Your task to perform on an android device: Open the map Image 0: 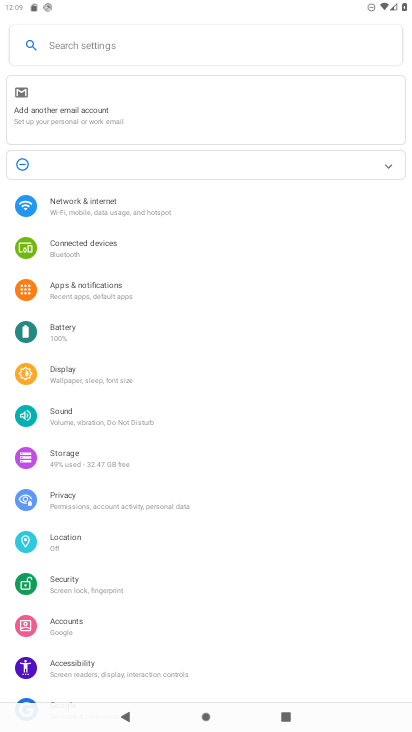
Step 0: click (361, 585)
Your task to perform on an android device: Open the map Image 1: 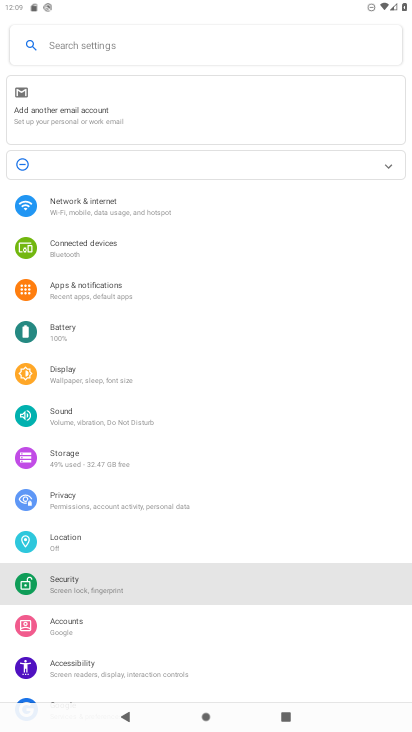
Step 1: press home button
Your task to perform on an android device: Open the map Image 2: 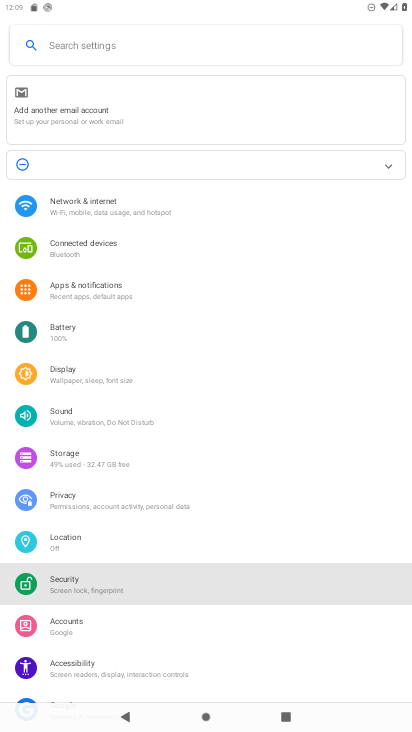
Step 2: drag from (361, 585) to (357, 540)
Your task to perform on an android device: Open the map Image 3: 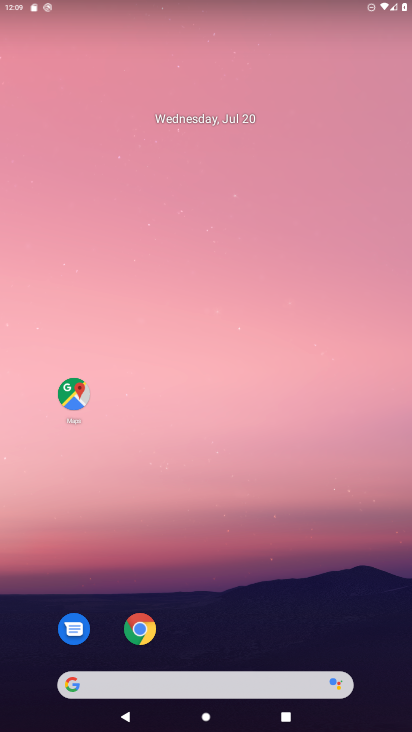
Step 3: drag from (189, 648) to (169, 196)
Your task to perform on an android device: Open the map Image 4: 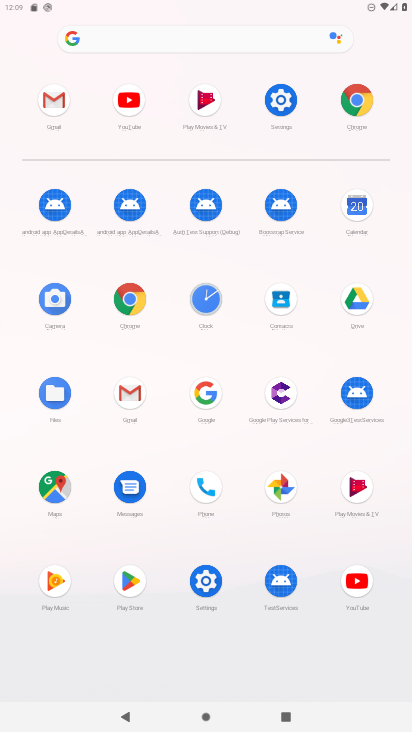
Step 4: click (50, 502)
Your task to perform on an android device: Open the map Image 5: 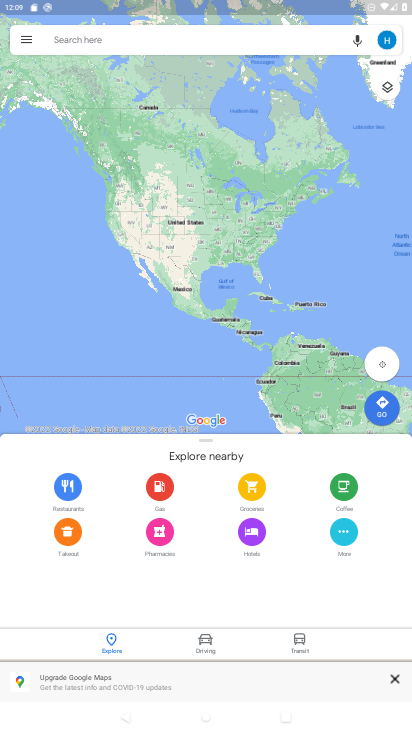
Step 5: task complete